Your task to perform on an android device: Open Yahoo.com Image 0: 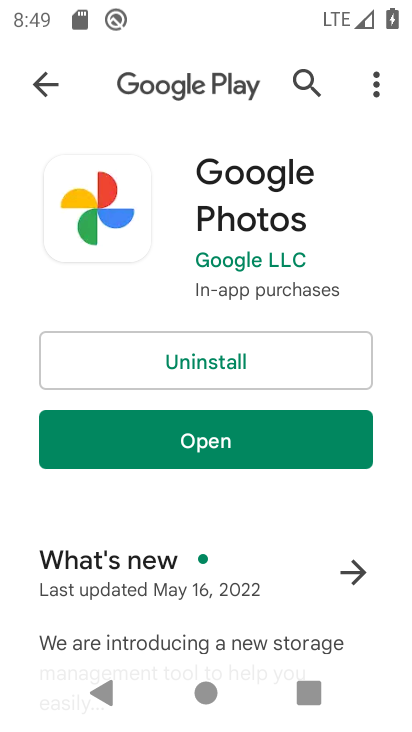
Step 0: press home button
Your task to perform on an android device: Open Yahoo.com Image 1: 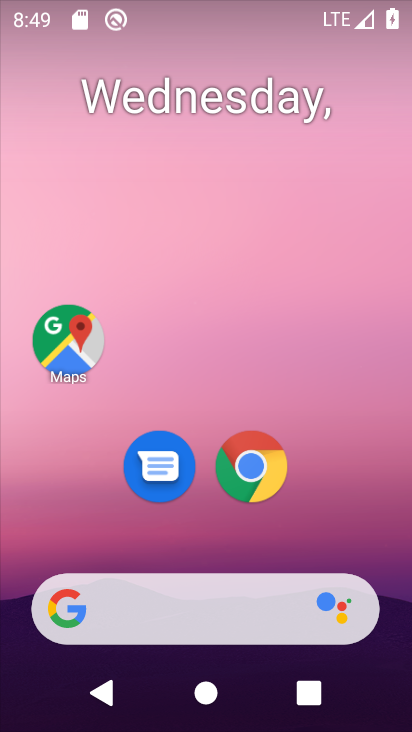
Step 1: click (250, 465)
Your task to perform on an android device: Open Yahoo.com Image 2: 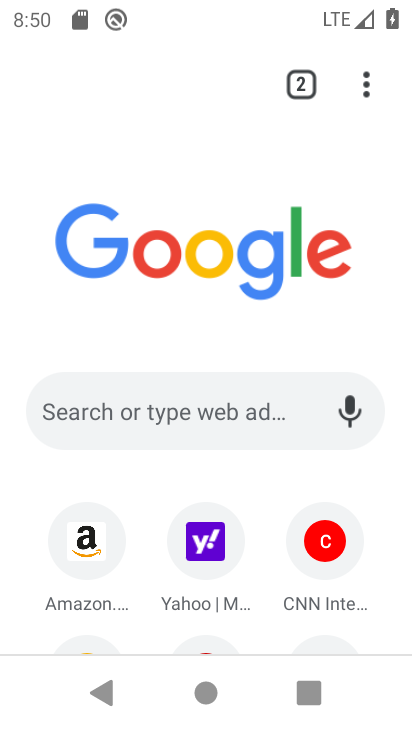
Step 2: click (213, 405)
Your task to perform on an android device: Open Yahoo.com Image 3: 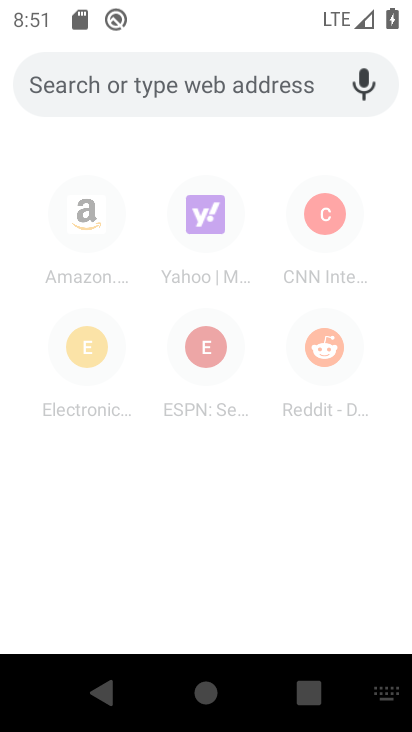
Step 3: type "Yahoo.com"
Your task to perform on an android device: Open Yahoo.com Image 4: 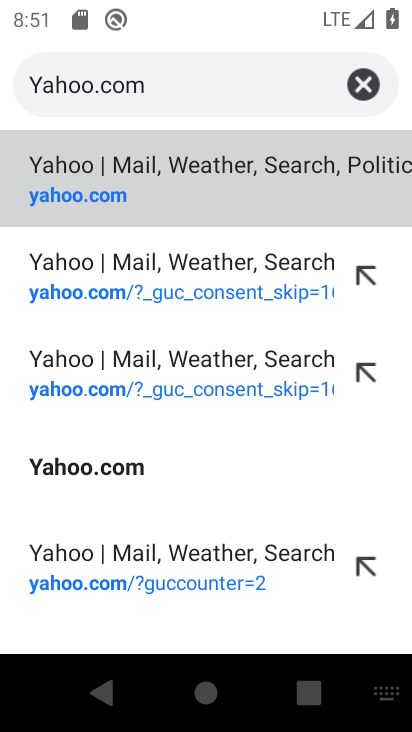
Step 4: click (75, 160)
Your task to perform on an android device: Open Yahoo.com Image 5: 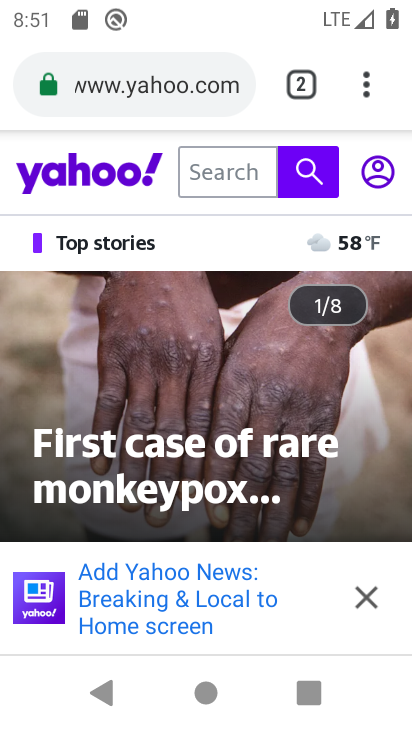
Step 5: task complete